Your task to perform on an android device: Go to location settings Image 0: 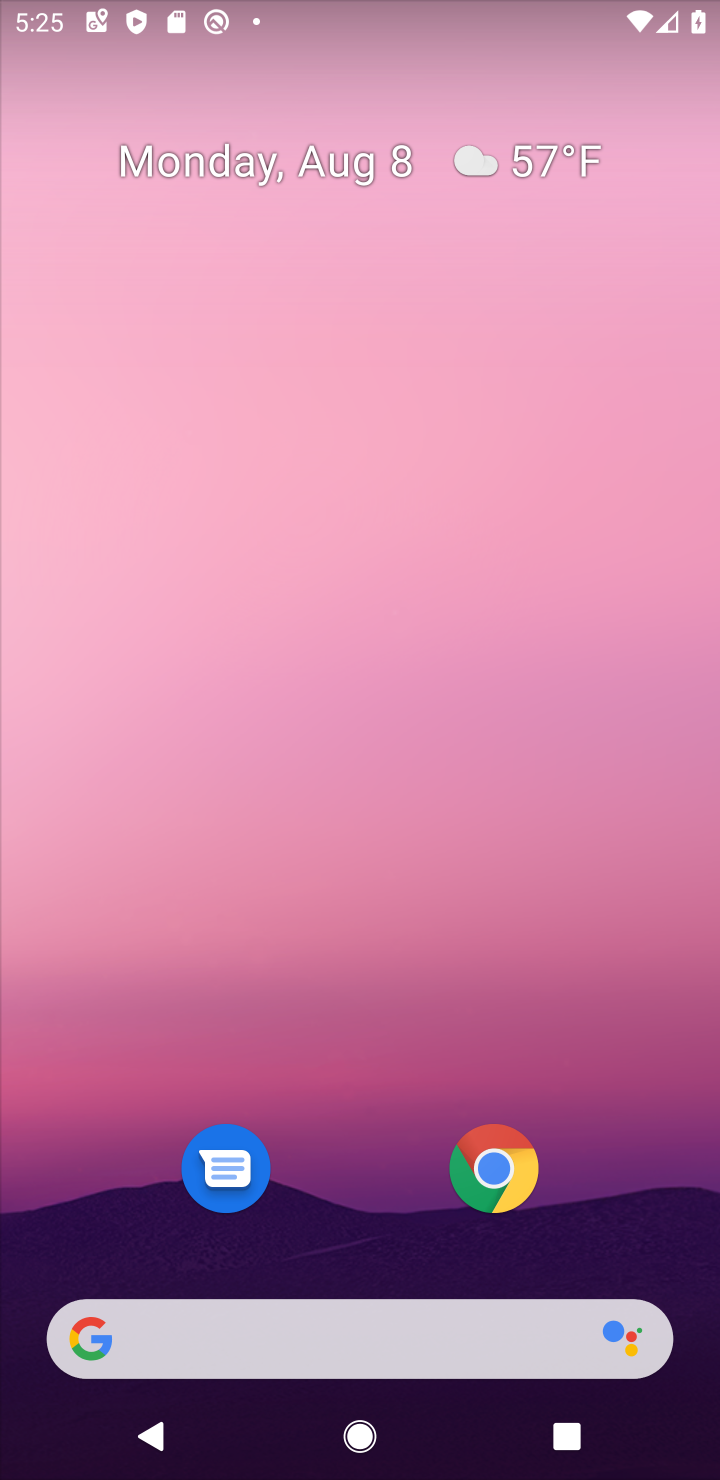
Step 0: drag from (417, 1329) to (484, 213)
Your task to perform on an android device: Go to location settings Image 1: 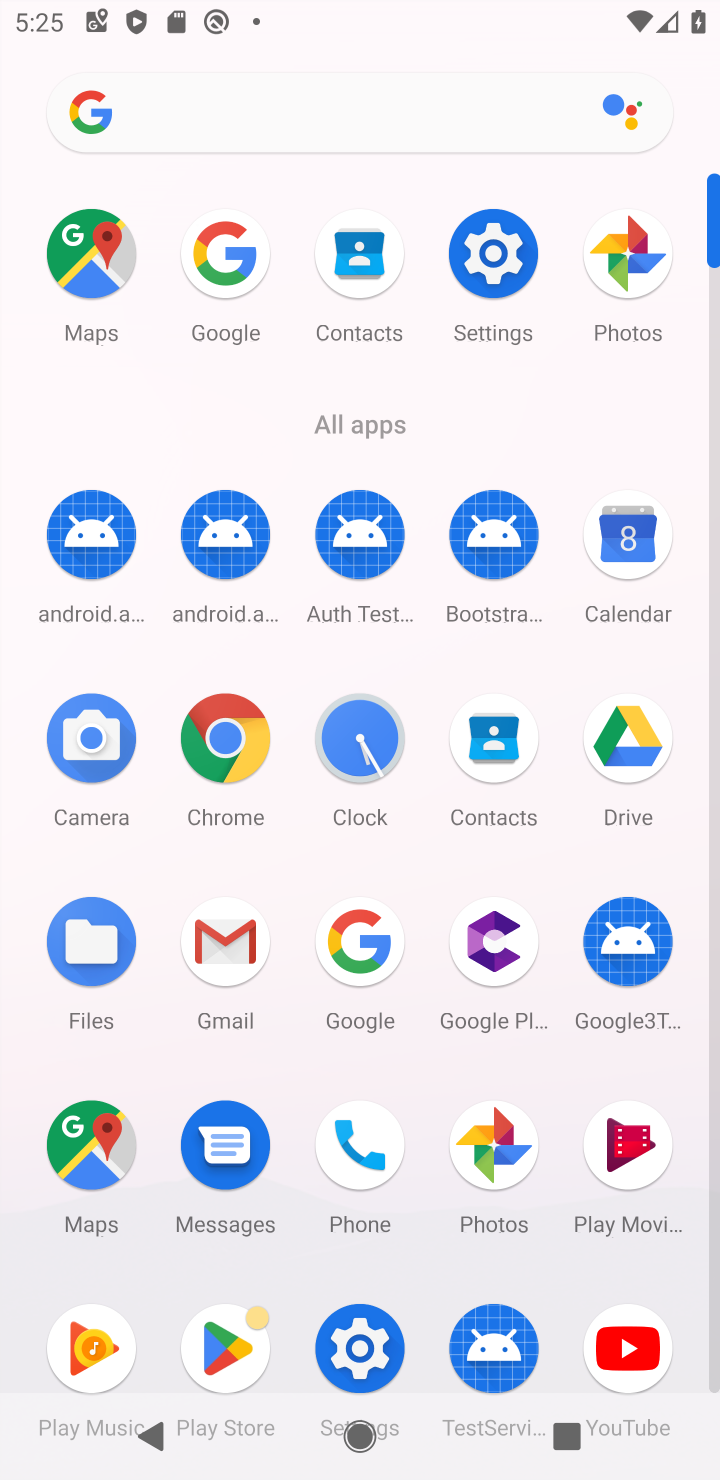
Step 1: click (485, 266)
Your task to perform on an android device: Go to location settings Image 2: 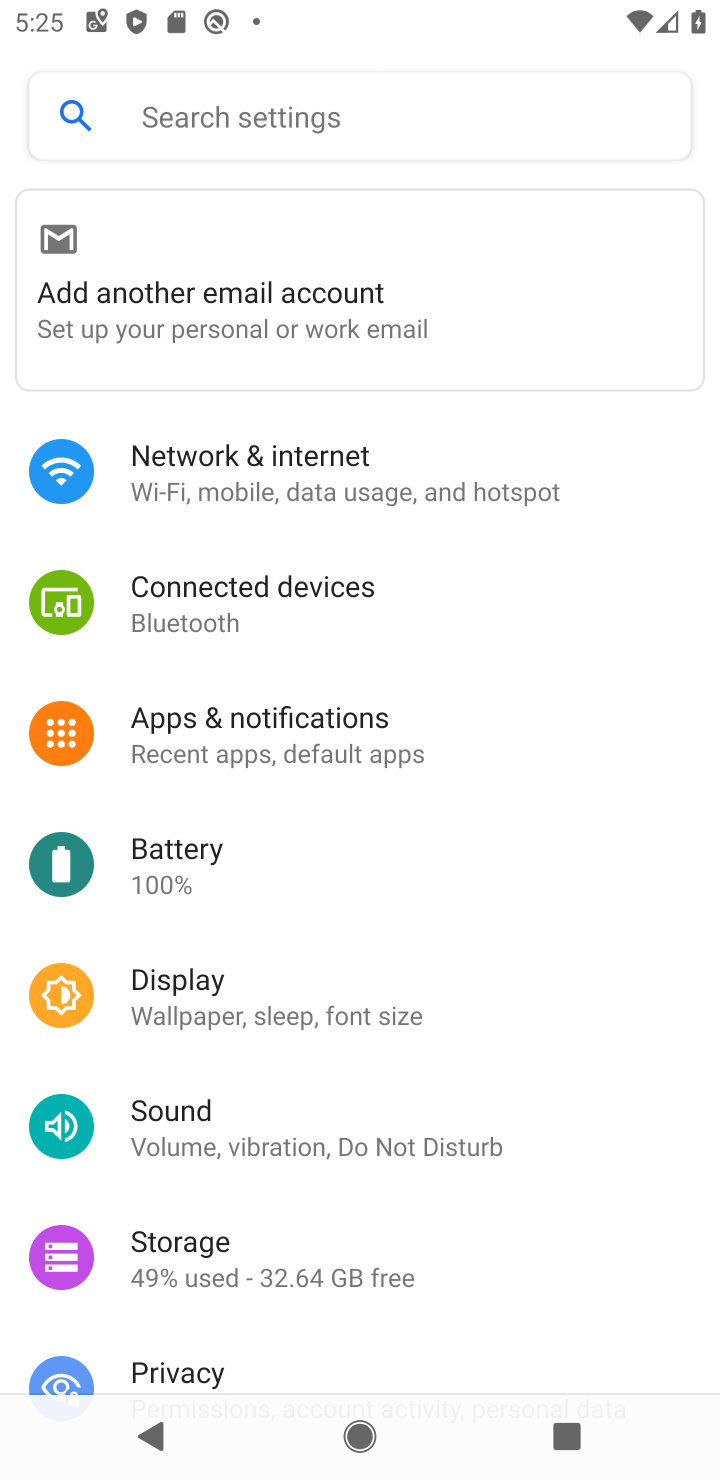
Step 2: drag from (235, 1321) to (282, 163)
Your task to perform on an android device: Go to location settings Image 3: 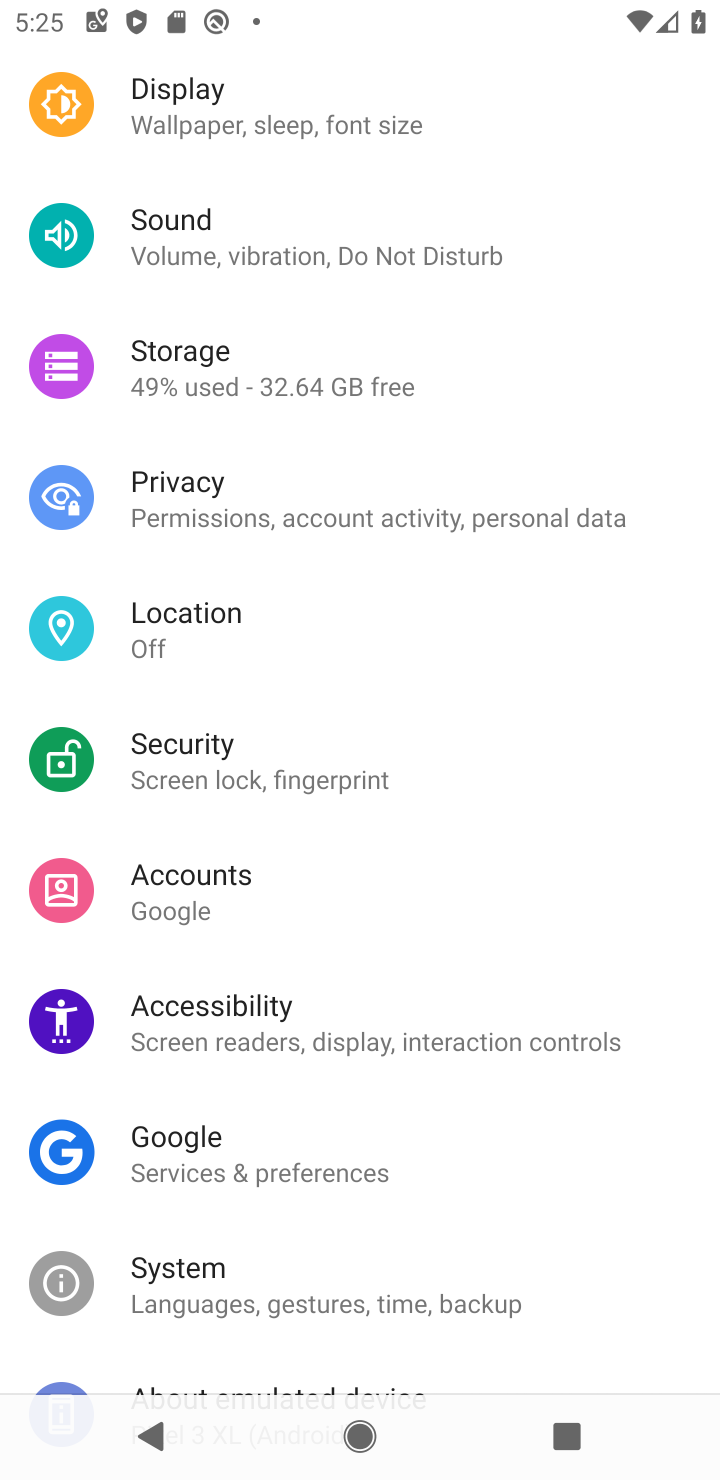
Step 3: click (177, 638)
Your task to perform on an android device: Go to location settings Image 4: 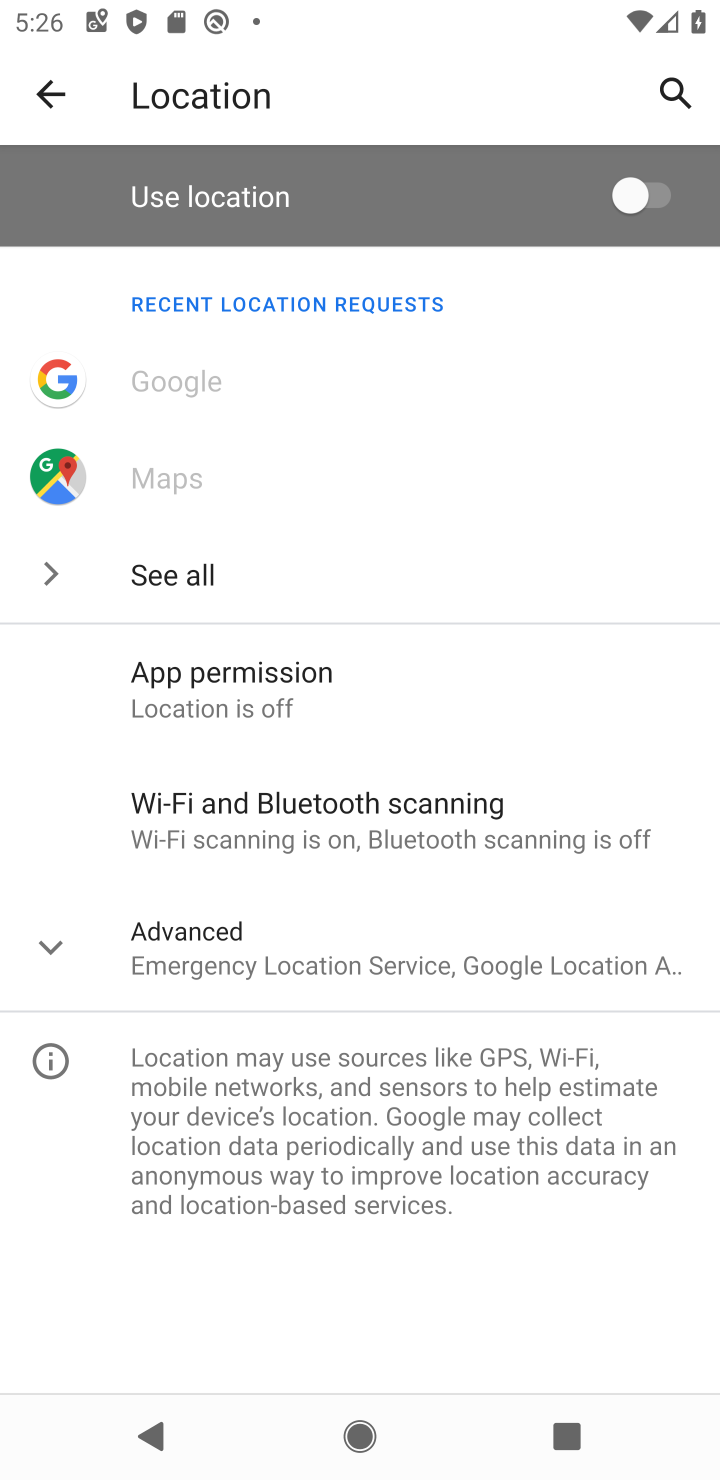
Step 4: task complete